Your task to perform on an android device: Search for seafood restaurants on Google Maps Image 0: 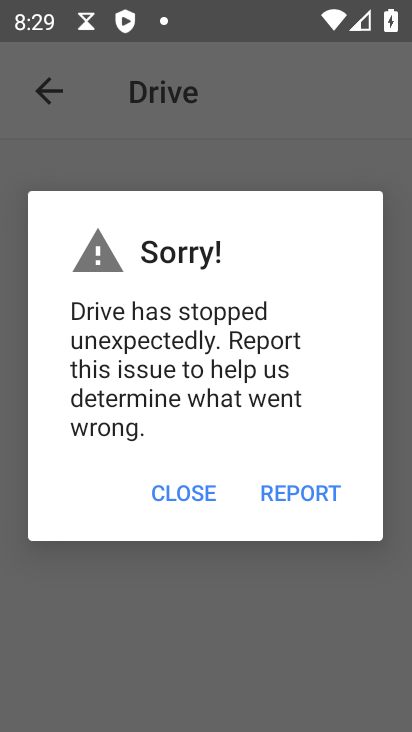
Step 0: press home button
Your task to perform on an android device: Search for seafood restaurants on Google Maps Image 1: 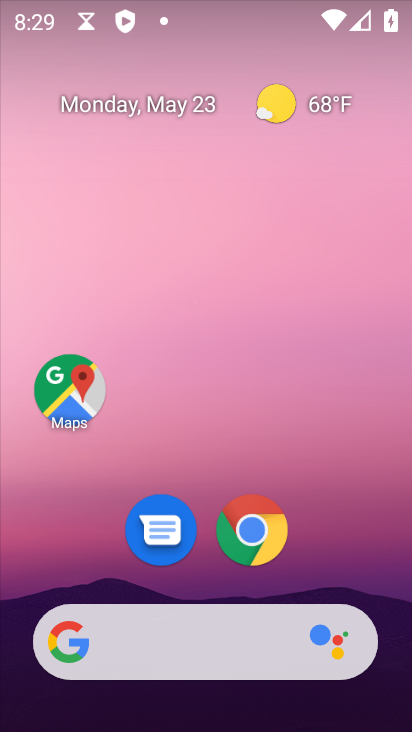
Step 1: click (64, 401)
Your task to perform on an android device: Search for seafood restaurants on Google Maps Image 2: 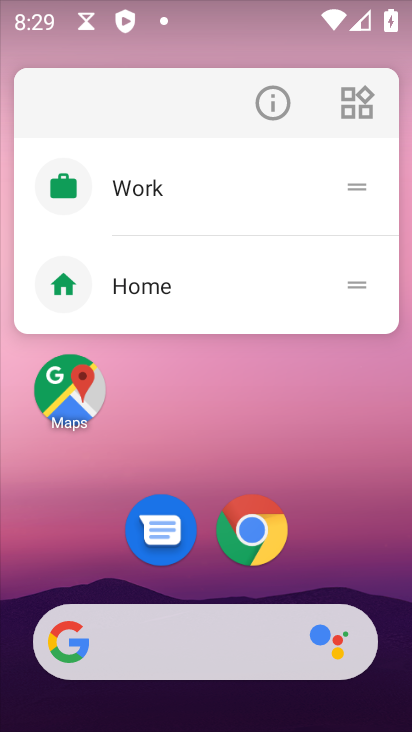
Step 2: click (69, 389)
Your task to perform on an android device: Search for seafood restaurants on Google Maps Image 3: 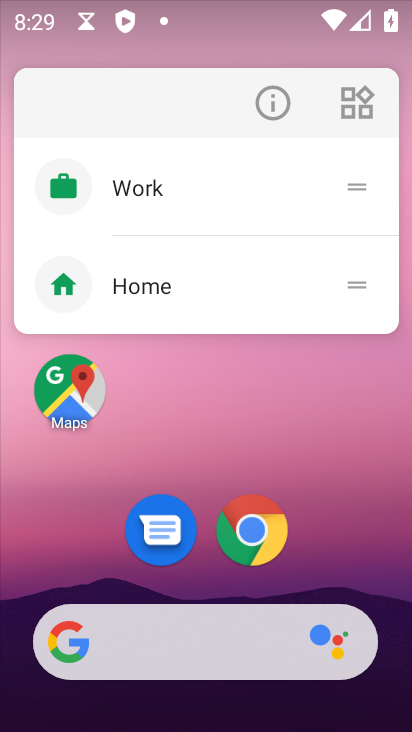
Step 3: click (66, 419)
Your task to perform on an android device: Search for seafood restaurants on Google Maps Image 4: 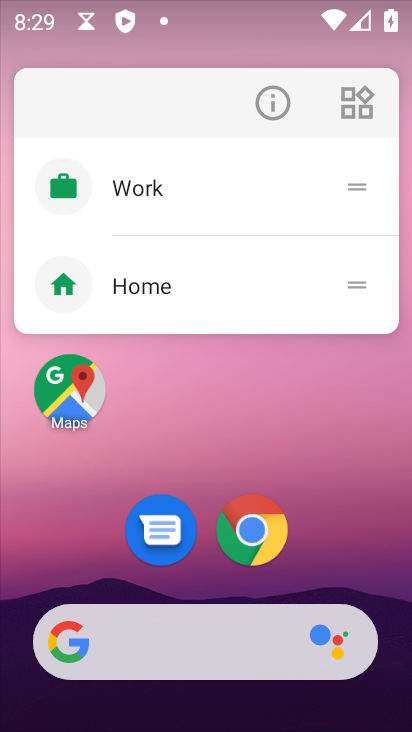
Step 4: click (75, 377)
Your task to perform on an android device: Search for seafood restaurants on Google Maps Image 5: 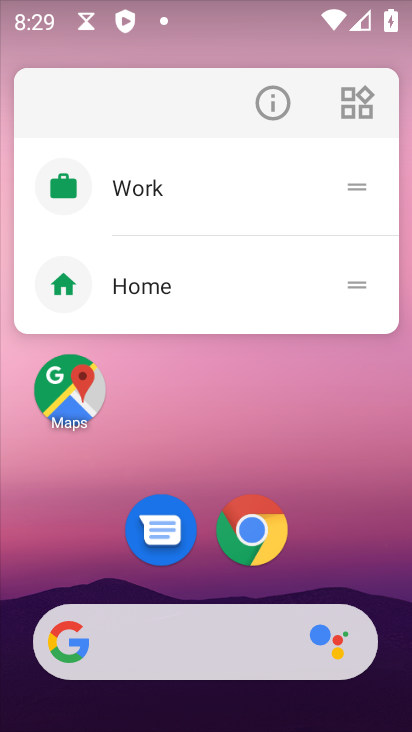
Step 5: click (60, 394)
Your task to perform on an android device: Search for seafood restaurants on Google Maps Image 6: 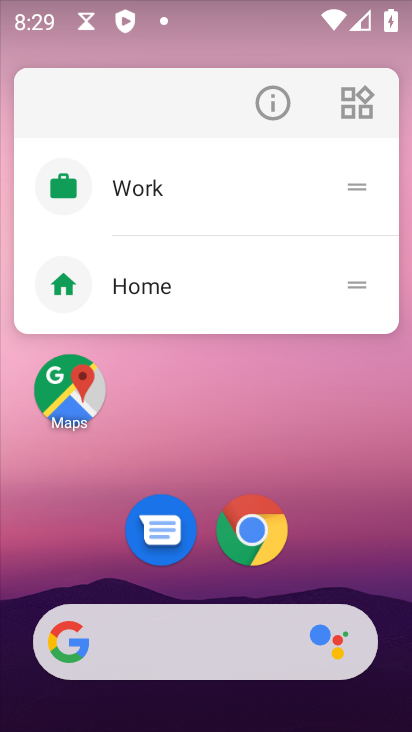
Step 6: click (83, 381)
Your task to perform on an android device: Search for seafood restaurants on Google Maps Image 7: 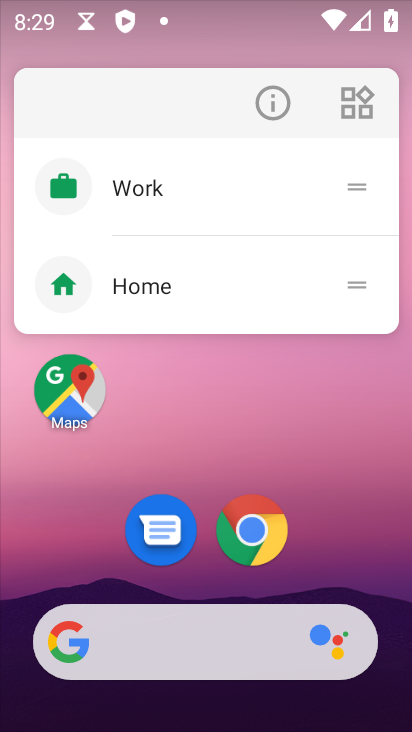
Step 7: click (81, 410)
Your task to perform on an android device: Search for seafood restaurants on Google Maps Image 8: 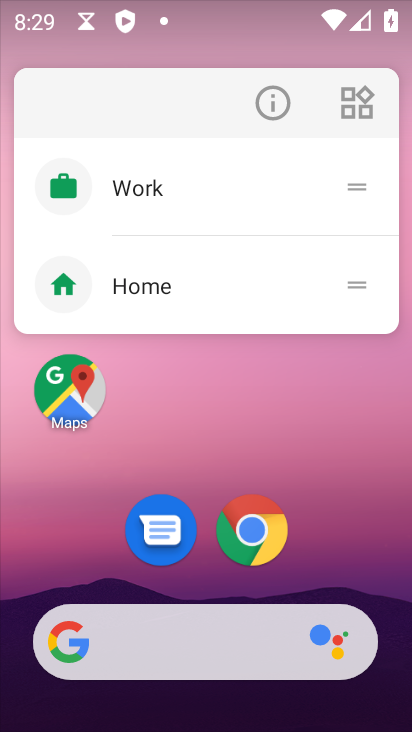
Step 8: click (70, 393)
Your task to perform on an android device: Search for seafood restaurants on Google Maps Image 9: 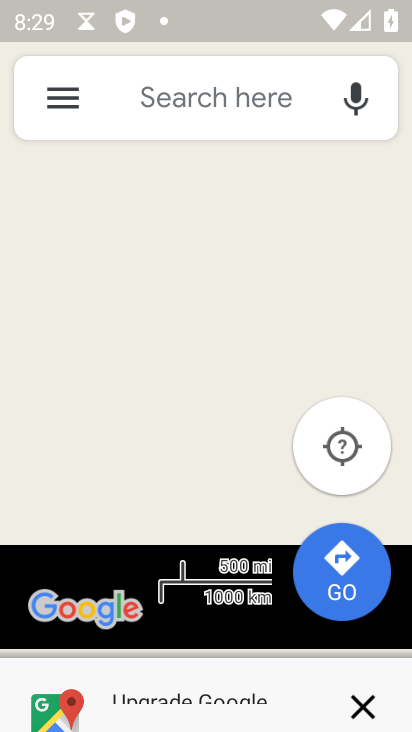
Step 9: click (167, 121)
Your task to perform on an android device: Search for seafood restaurants on Google Maps Image 10: 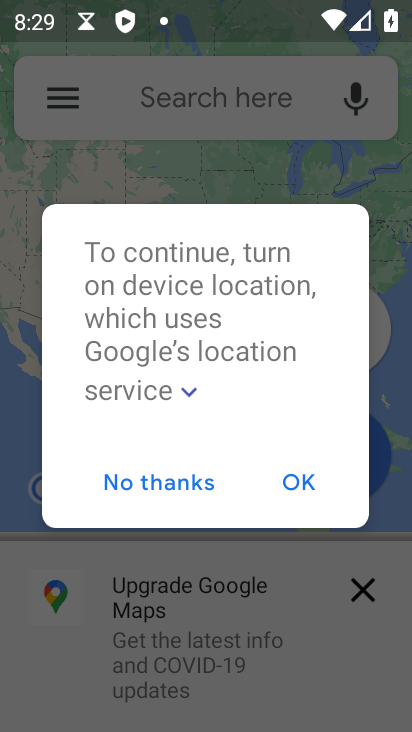
Step 10: click (295, 479)
Your task to perform on an android device: Search for seafood restaurants on Google Maps Image 11: 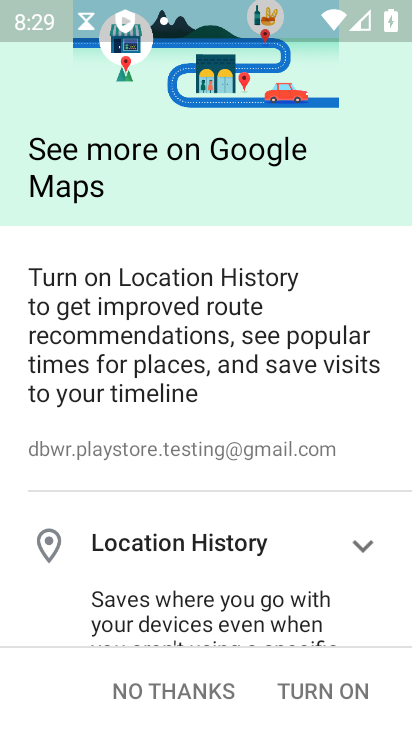
Step 11: click (155, 690)
Your task to perform on an android device: Search for seafood restaurants on Google Maps Image 12: 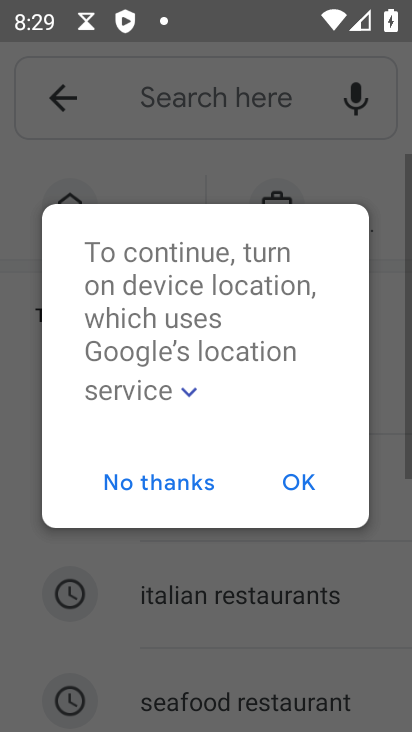
Step 12: click (294, 486)
Your task to perform on an android device: Search for seafood restaurants on Google Maps Image 13: 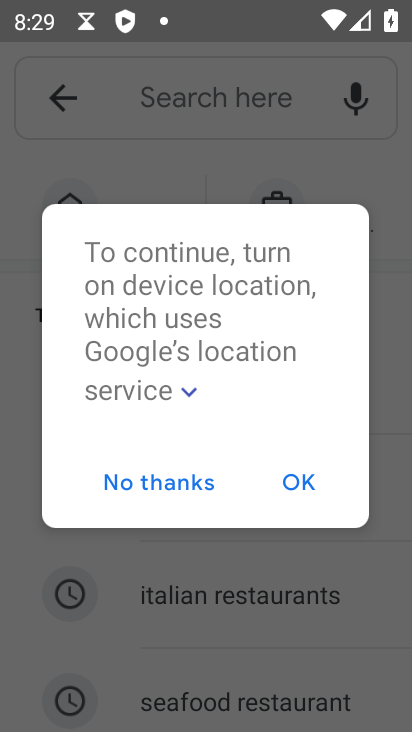
Step 13: click (297, 491)
Your task to perform on an android device: Search for seafood restaurants on Google Maps Image 14: 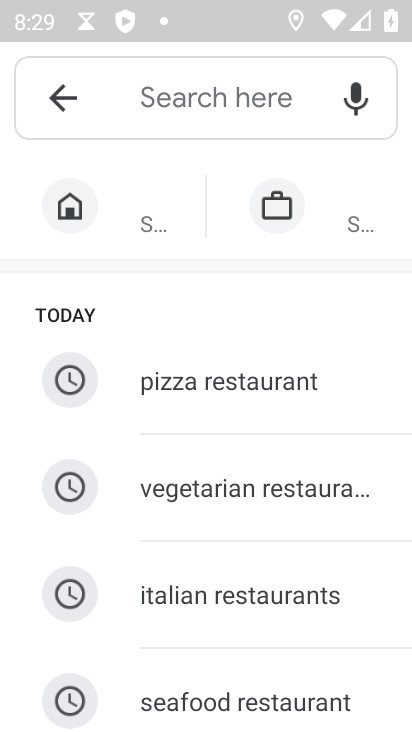
Step 14: click (132, 104)
Your task to perform on an android device: Search for seafood restaurants on Google Maps Image 15: 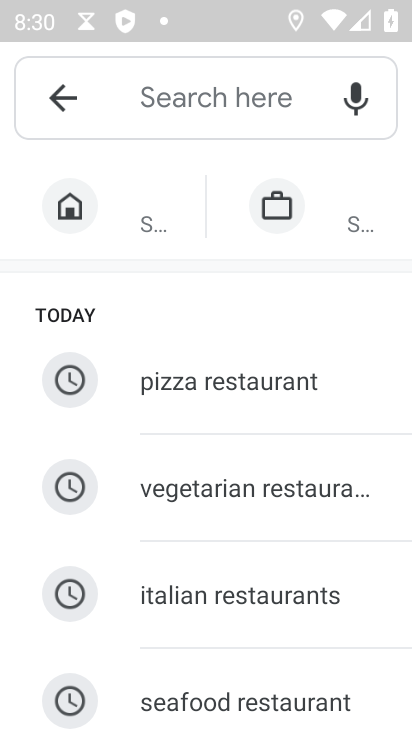
Step 15: click (161, 95)
Your task to perform on an android device: Search for seafood restaurants on Google Maps Image 16: 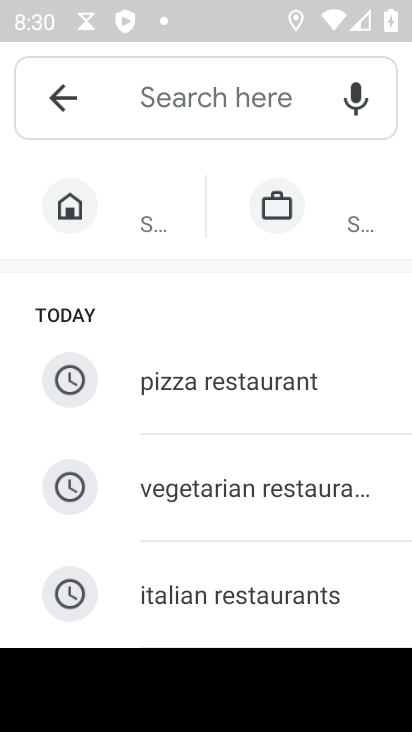
Step 16: type "seafood restaurants"
Your task to perform on an android device: Search for seafood restaurants on Google Maps Image 17: 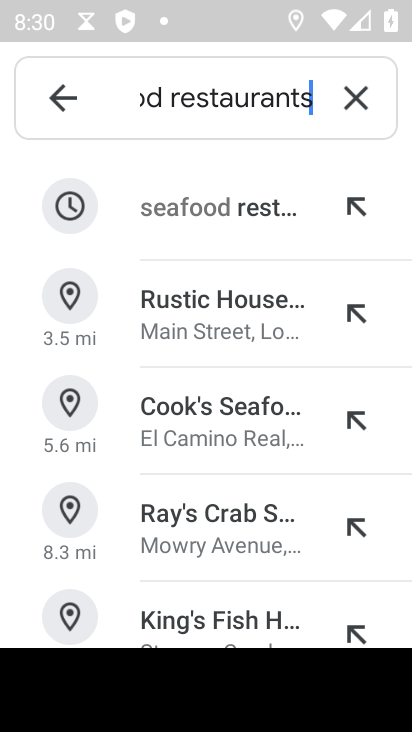
Step 17: click (217, 211)
Your task to perform on an android device: Search for seafood restaurants on Google Maps Image 18: 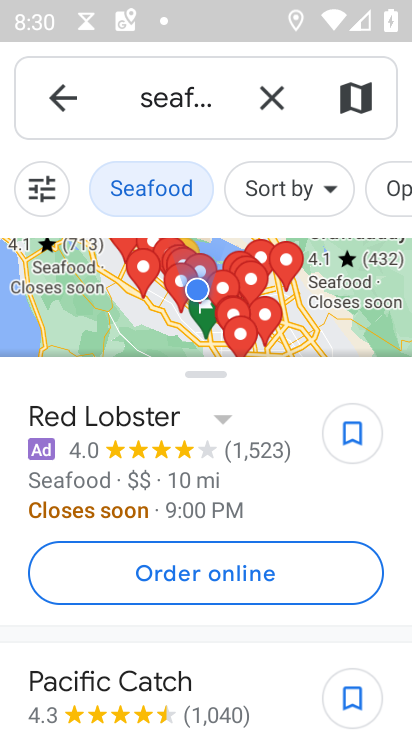
Step 18: task complete